Your task to perform on an android device: set the timer Image 0: 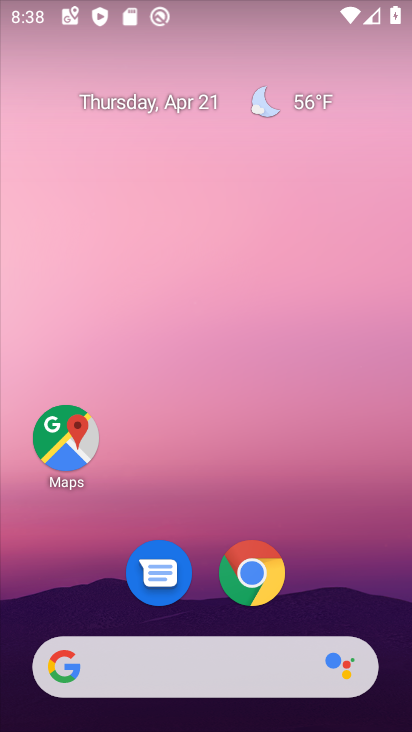
Step 0: drag from (346, 571) to (357, 44)
Your task to perform on an android device: set the timer Image 1: 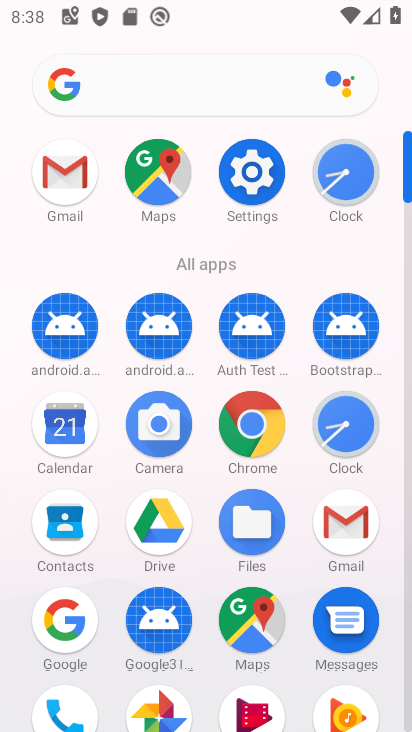
Step 1: click (321, 413)
Your task to perform on an android device: set the timer Image 2: 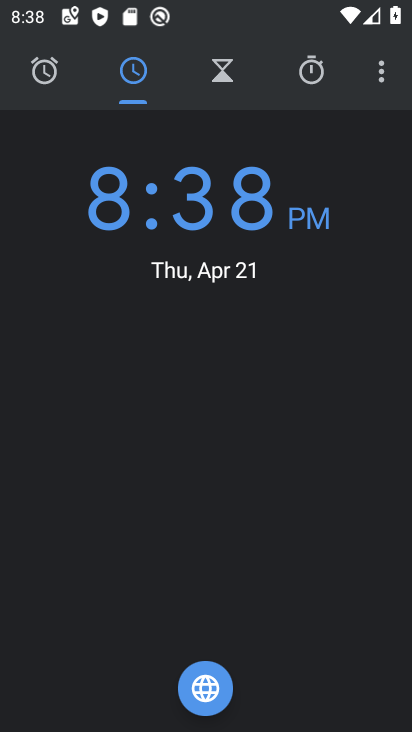
Step 2: click (221, 63)
Your task to perform on an android device: set the timer Image 3: 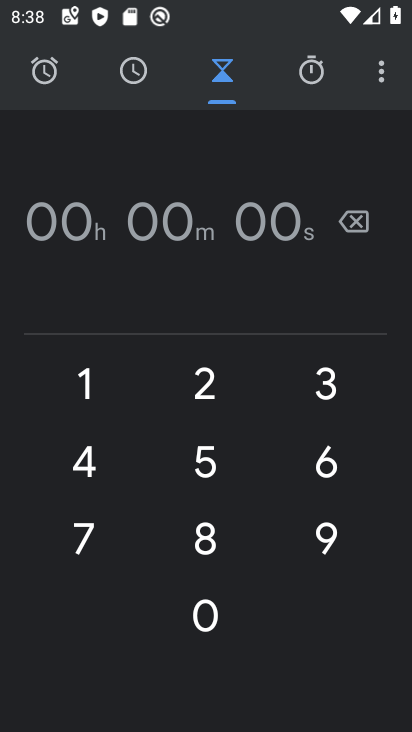
Step 3: click (211, 369)
Your task to perform on an android device: set the timer Image 4: 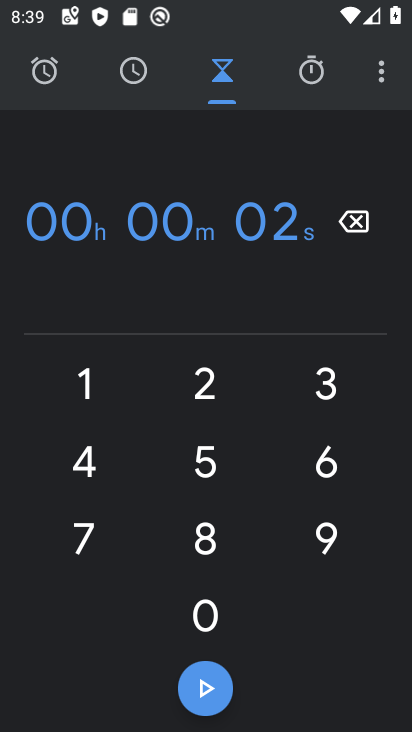
Step 4: click (214, 384)
Your task to perform on an android device: set the timer Image 5: 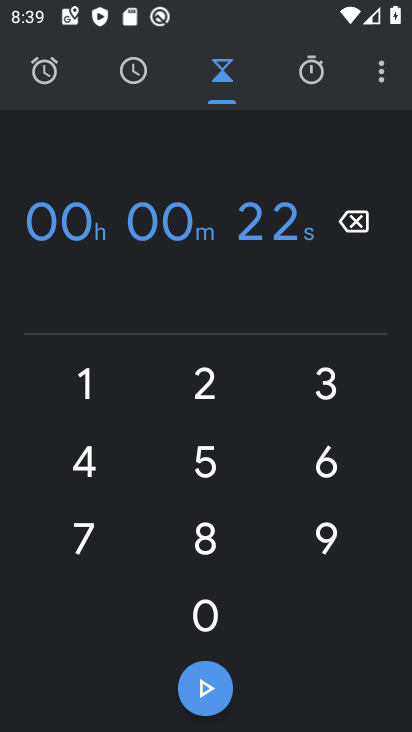
Step 5: task complete